Your task to perform on an android device: open a new tab in the chrome app Image 0: 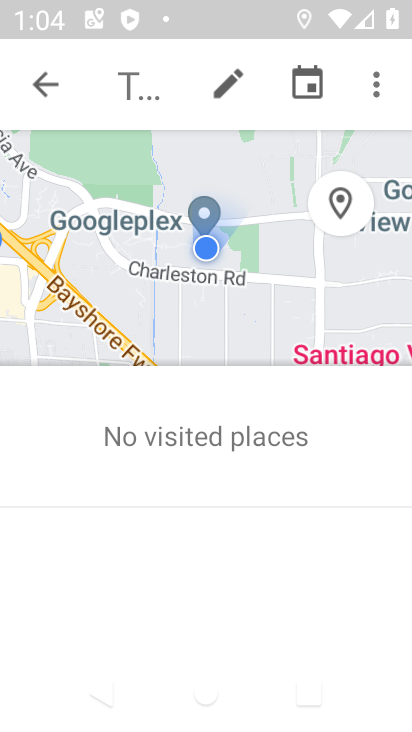
Step 0: press home button
Your task to perform on an android device: open a new tab in the chrome app Image 1: 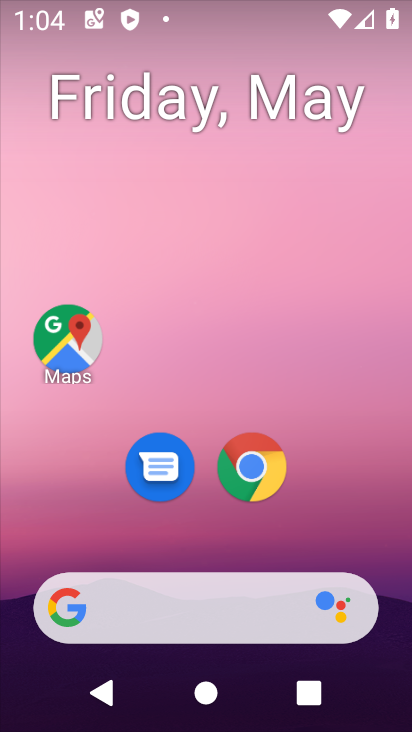
Step 1: click (251, 455)
Your task to perform on an android device: open a new tab in the chrome app Image 2: 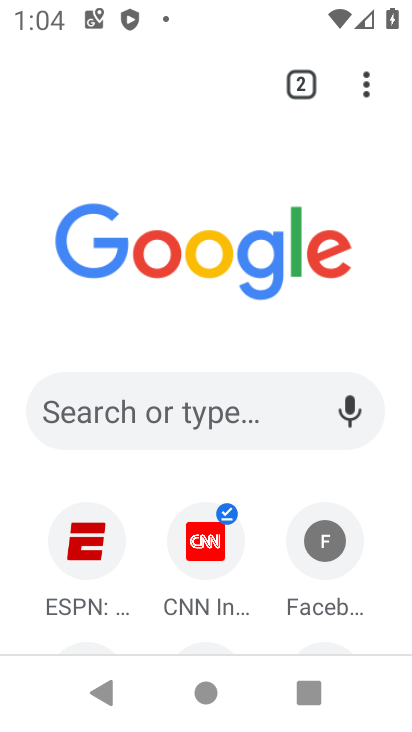
Step 2: task complete